Your task to perform on an android device: Open the web browser Image 0: 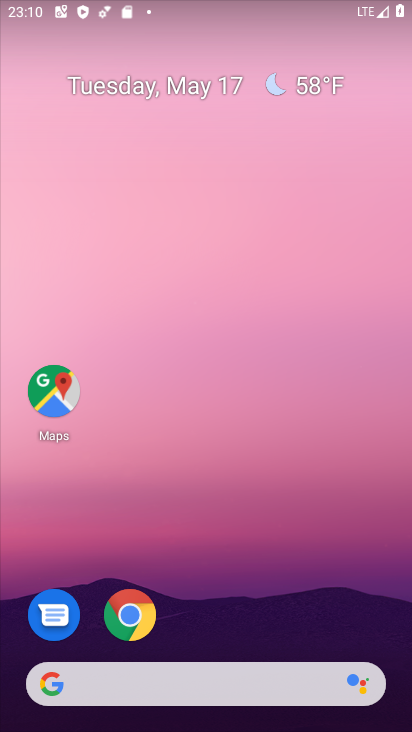
Step 0: click (150, 604)
Your task to perform on an android device: Open the web browser Image 1: 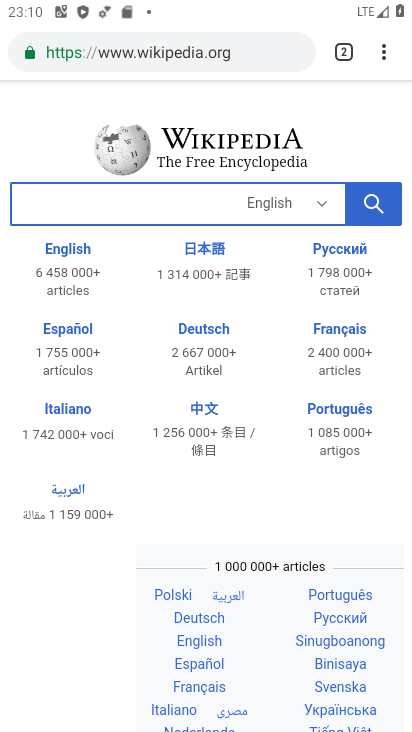
Step 1: task complete